Your task to perform on an android device: uninstall "Pinterest" Image 0: 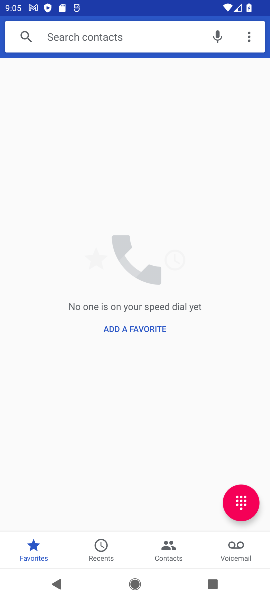
Step 0: press back button
Your task to perform on an android device: uninstall "Pinterest" Image 1: 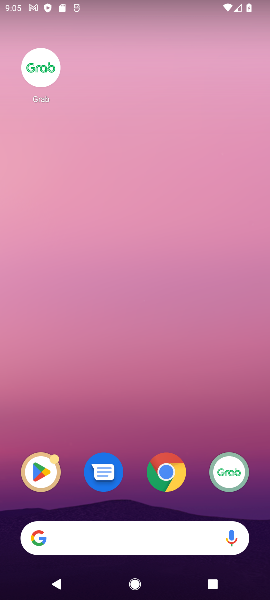
Step 1: drag from (116, 481) to (23, 161)
Your task to perform on an android device: uninstall "Pinterest" Image 2: 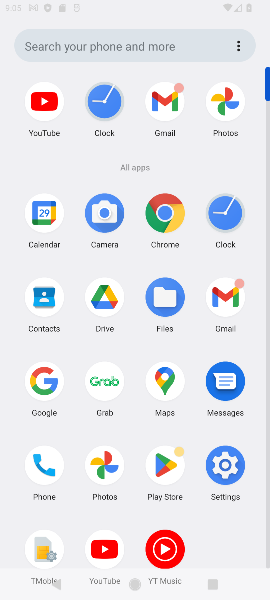
Step 2: drag from (159, 342) to (142, 174)
Your task to perform on an android device: uninstall "Pinterest" Image 3: 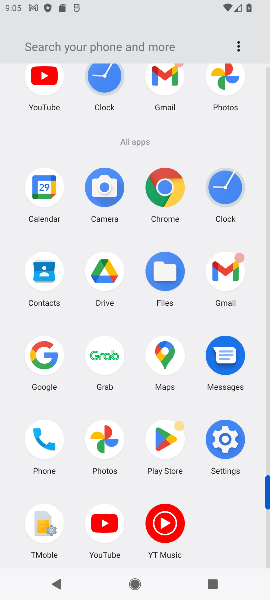
Step 3: click (162, 433)
Your task to perform on an android device: uninstall "Pinterest" Image 4: 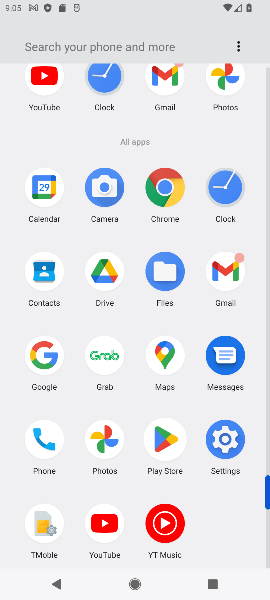
Step 4: click (166, 436)
Your task to perform on an android device: uninstall "Pinterest" Image 5: 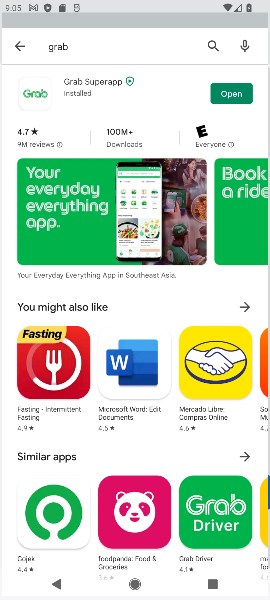
Step 5: click (172, 441)
Your task to perform on an android device: uninstall "Pinterest" Image 6: 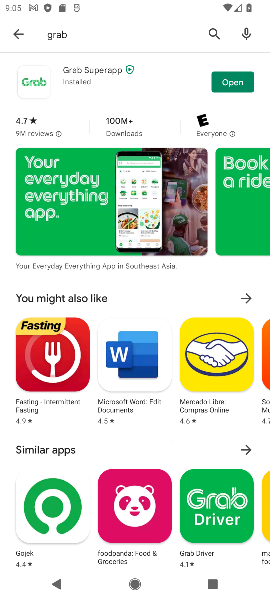
Step 6: click (172, 442)
Your task to perform on an android device: uninstall "Pinterest" Image 7: 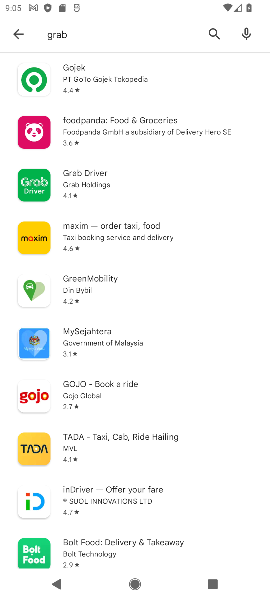
Step 7: click (17, 31)
Your task to perform on an android device: uninstall "Pinterest" Image 8: 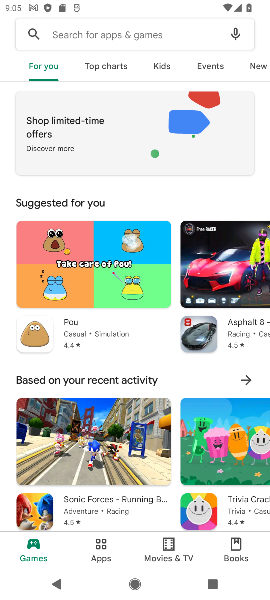
Step 8: click (60, 35)
Your task to perform on an android device: uninstall "Pinterest" Image 9: 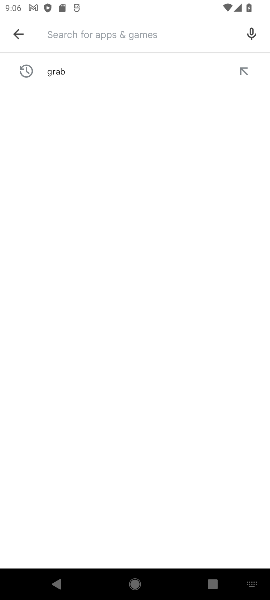
Step 9: click (18, 31)
Your task to perform on an android device: uninstall "Pinterest" Image 10: 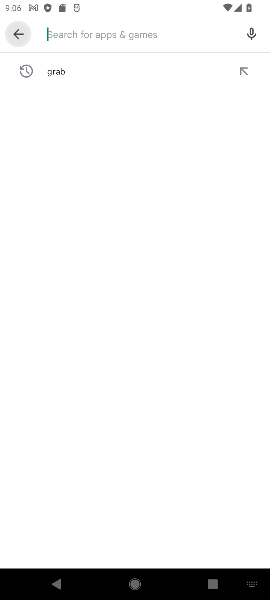
Step 10: click (18, 31)
Your task to perform on an android device: uninstall "Pinterest" Image 11: 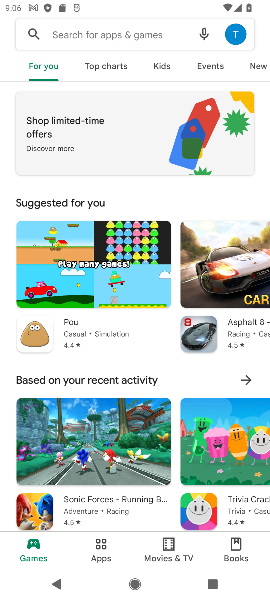
Step 11: click (70, 35)
Your task to perform on an android device: uninstall "Pinterest" Image 12: 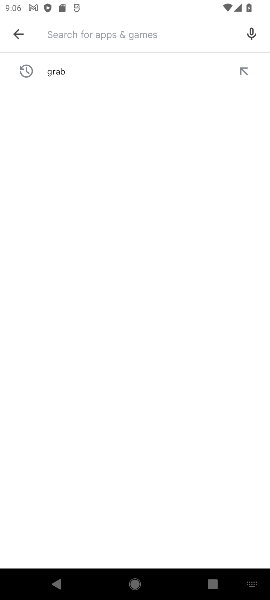
Step 12: click (58, 34)
Your task to perform on an android device: uninstall "Pinterest" Image 13: 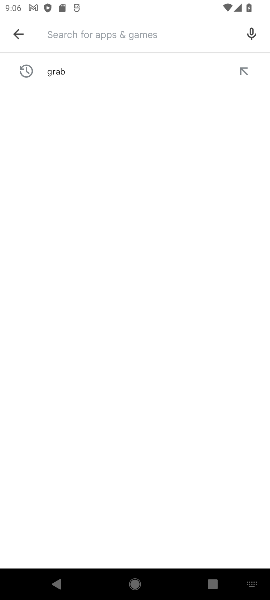
Step 13: type "pinterest"
Your task to perform on an android device: uninstall "Pinterest" Image 14: 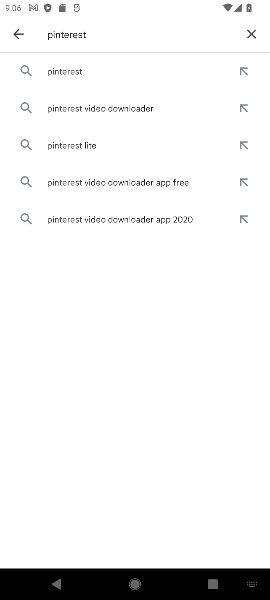
Step 14: click (60, 70)
Your task to perform on an android device: uninstall "Pinterest" Image 15: 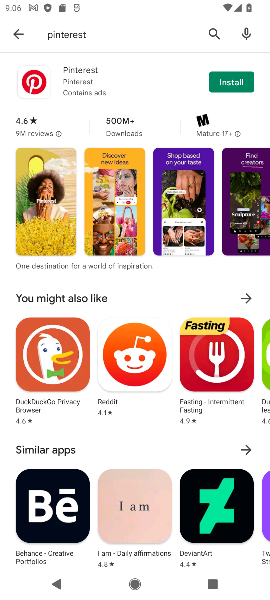
Step 15: task complete